Your task to perform on an android device: turn on the 12-hour format for clock Image 0: 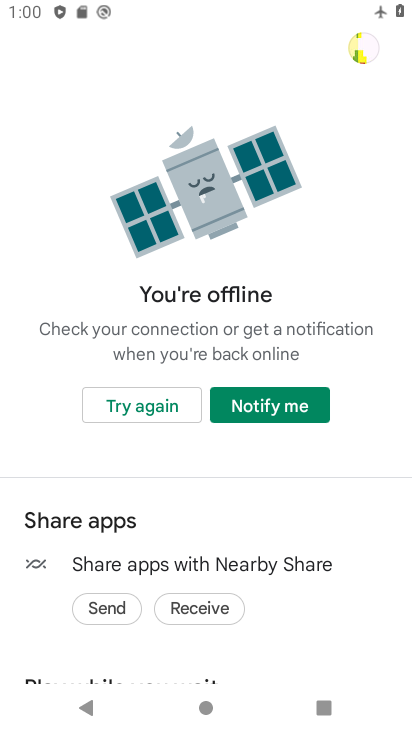
Step 0: press home button
Your task to perform on an android device: turn on the 12-hour format for clock Image 1: 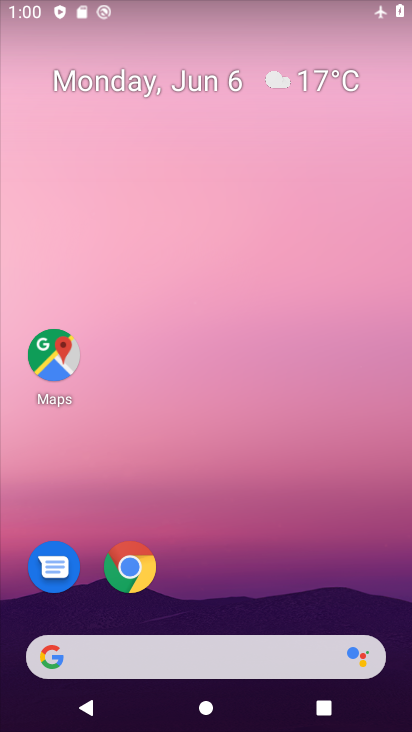
Step 1: drag from (233, 714) to (275, 66)
Your task to perform on an android device: turn on the 12-hour format for clock Image 2: 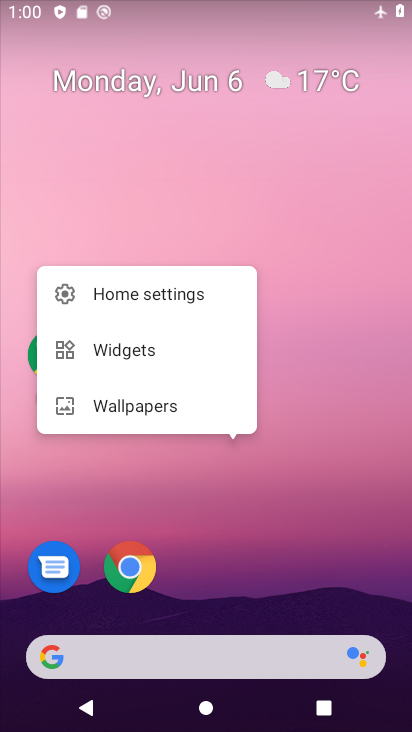
Step 2: drag from (267, 693) to (359, 34)
Your task to perform on an android device: turn on the 12-hour format for clock Image 3: 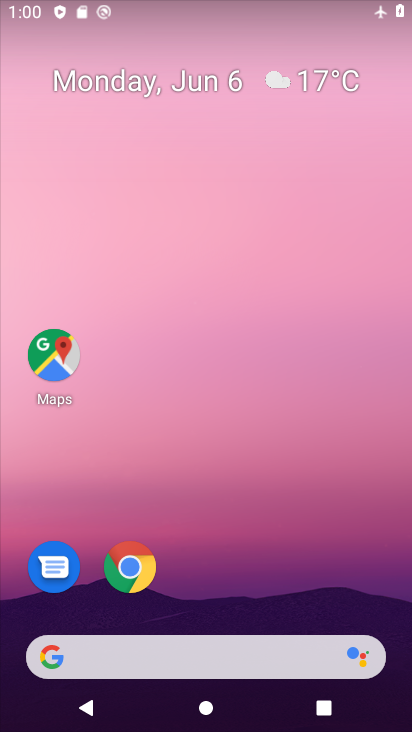
Step 3: drag from (291, 709) to (316, 3)
Your task to perform on an android device: turn on the 12-hour format for clock Image 4: 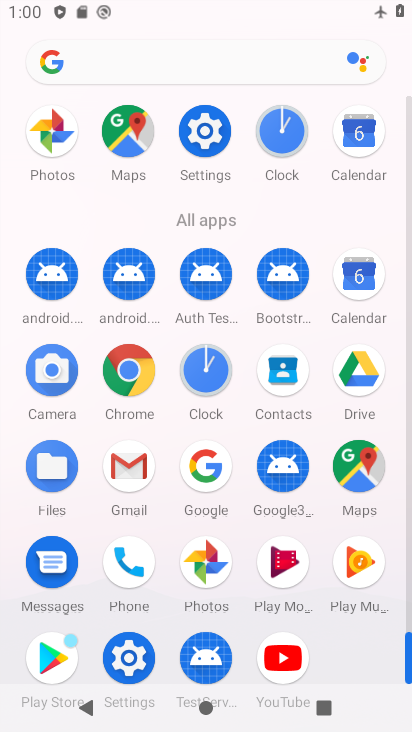
Step 4: click (299, 133)
Your task to perform on an android device: turn on the 12-hour format for clock Image 5: 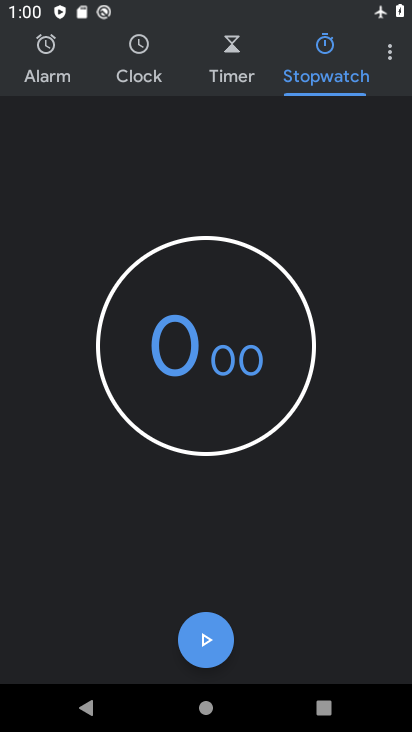
Step 5: click (398, 63)
Your task to perform on an android device: turn on the 12-hour format for clock Image 6: 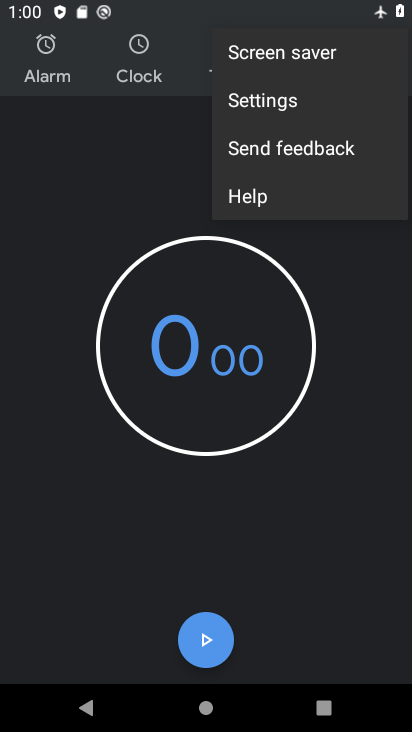
Step 6: click (302, 101)
Your task to perform on an android device: turn on the 12-hour format for clock Image 7: 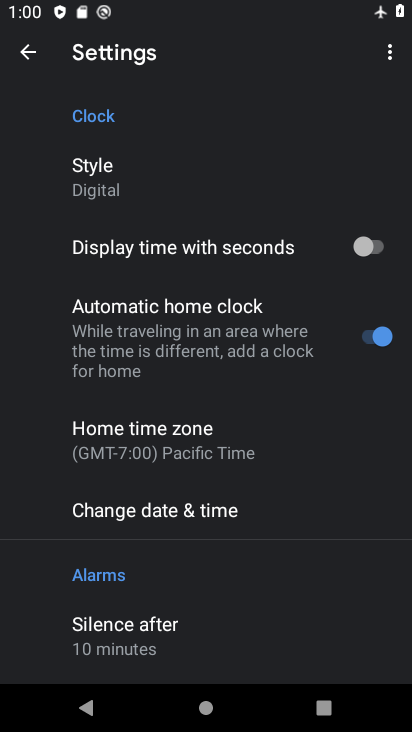
Step 7: click (261, 517)
Your task to perform on an android device: turn on the 12-hour format for clock Image 8: 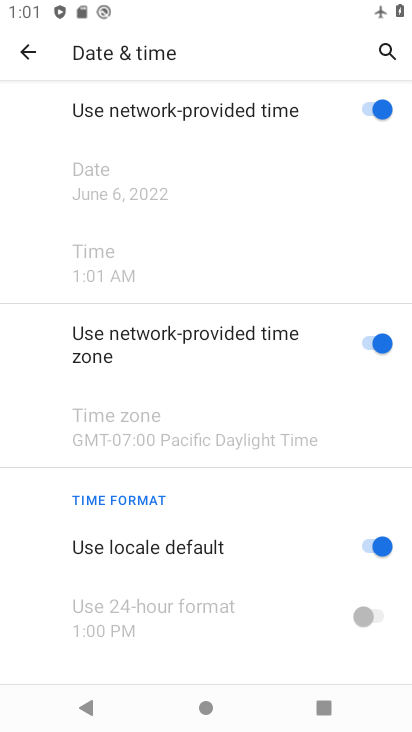
Step 8: task complete